Your task to perform on an android device: see tabs open on other devices in the chrome app Image 0: 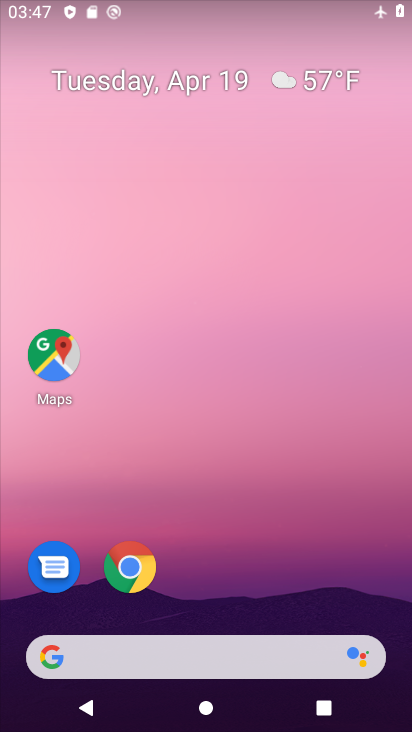
Step 0: drag from (371, 602) to (361, 220)
Your task to perform on an android device: see tabs open on other devices in the chrome app Image 1: 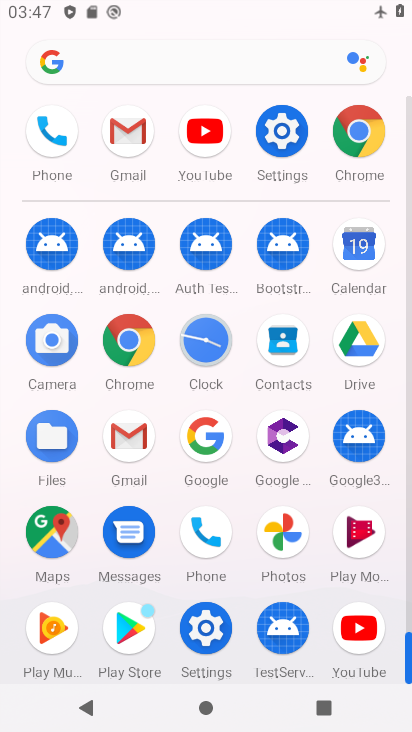
Step 1: click (130, 345)
Your task to perform on an android device: see tabs open on other devices in the chrome app Image 2: 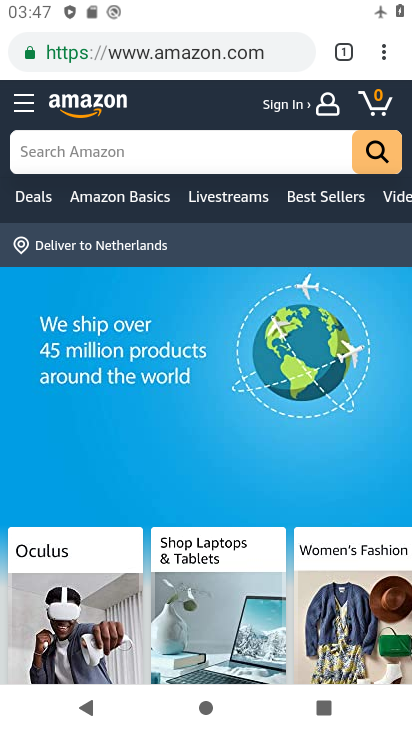
Step 2: click (383, 49)
Your task to perform on an android device: see tabs open on other devices in the chrome app Image 3: 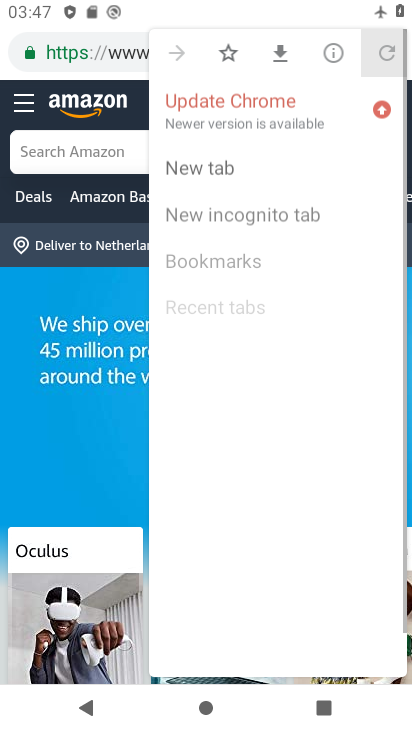
Step 3: click (383, 49)
Your task to perform on an android device: see tabs open on other devices in the chrome app Image 4: 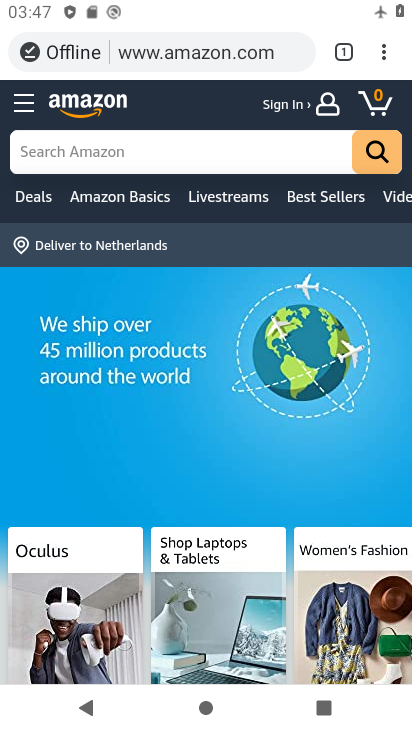
Step 4: click (383, 49)
Your task to perform on an android device: see tabs open on other devices in the chrome app Image 5: 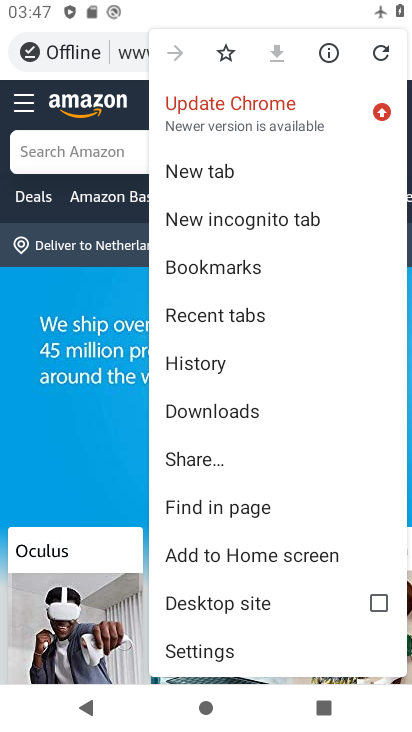
Step 5: click (231, 315)
Your task to perform on an android device: see tabs open on other devices in the chrome app Image 6: 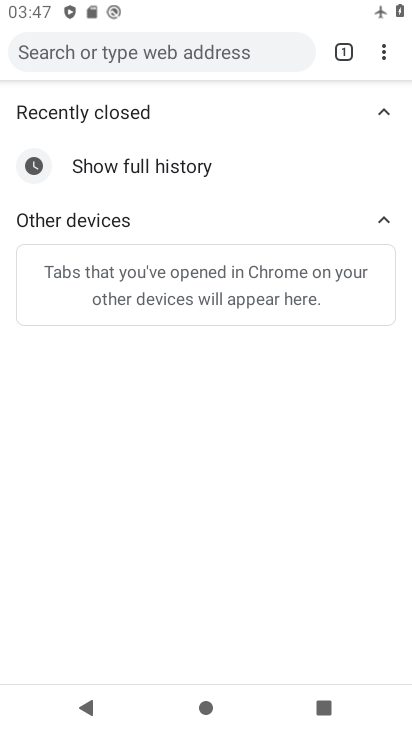
Step 6: click (339, 48)
Your task to perform on an android device: see tabs open on other devices in the chrome app Image 7: 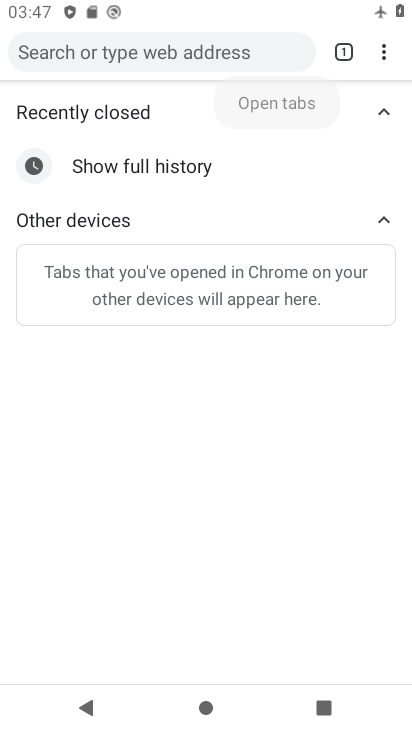
Step 7: click (351, 50)
Your task to perform on an android device: see tabs open on other devices in the chrome app Image 8: 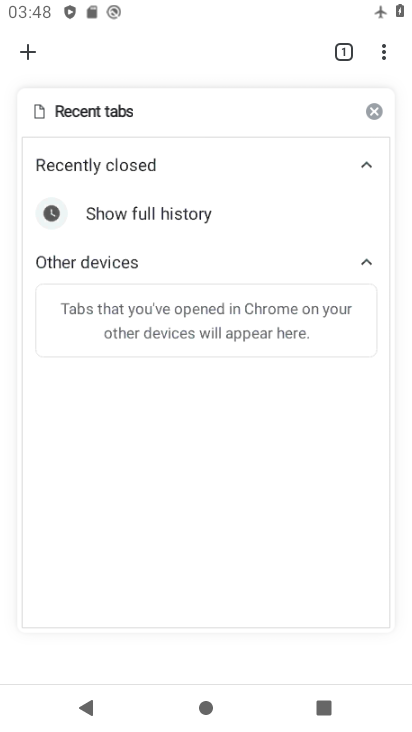
Step 8: task complete